Your task to perform on an android device: open app "Google Translate" (install if not already installed) Image 0: 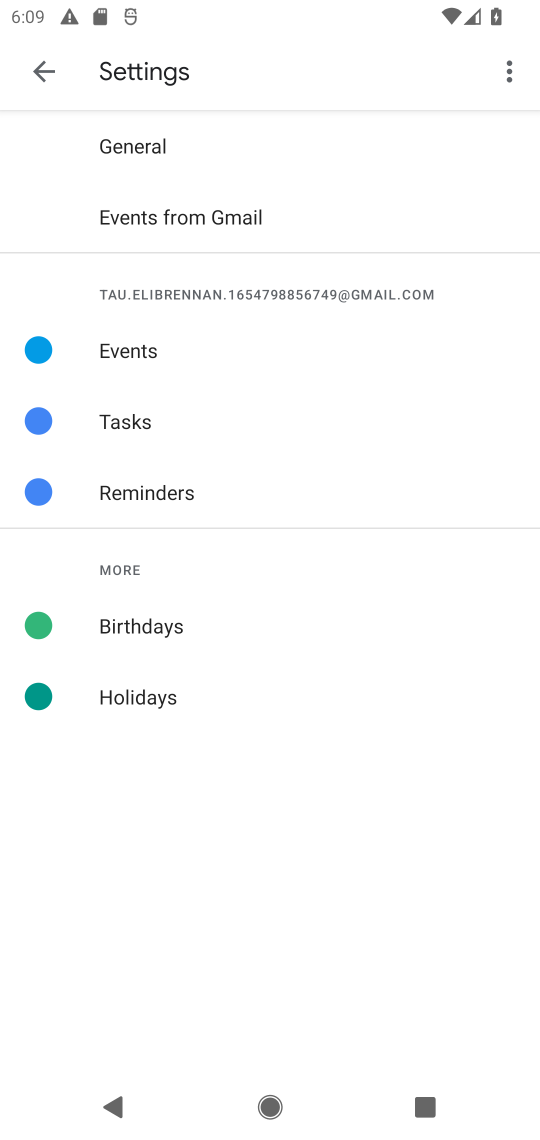
Step 0: press home button
Your task to perform on an android device: open app "Google Translate" (install if not already installed) Image 1: 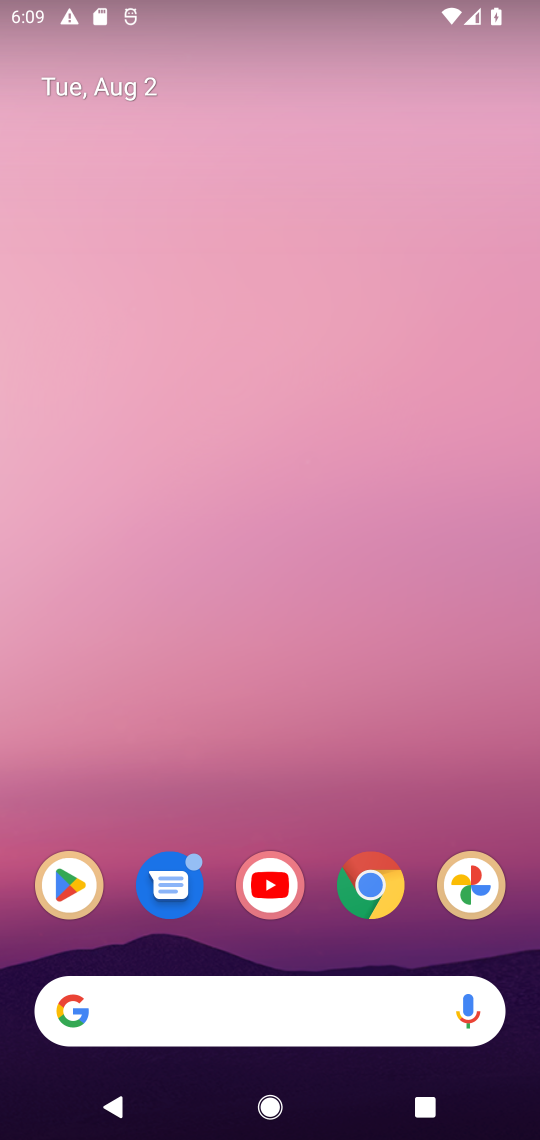
Step 1: drag from (363, 674) to (352, 133)
Your task to perform on an android device: open app "Google Translate" (install if not already installed) Image 2: 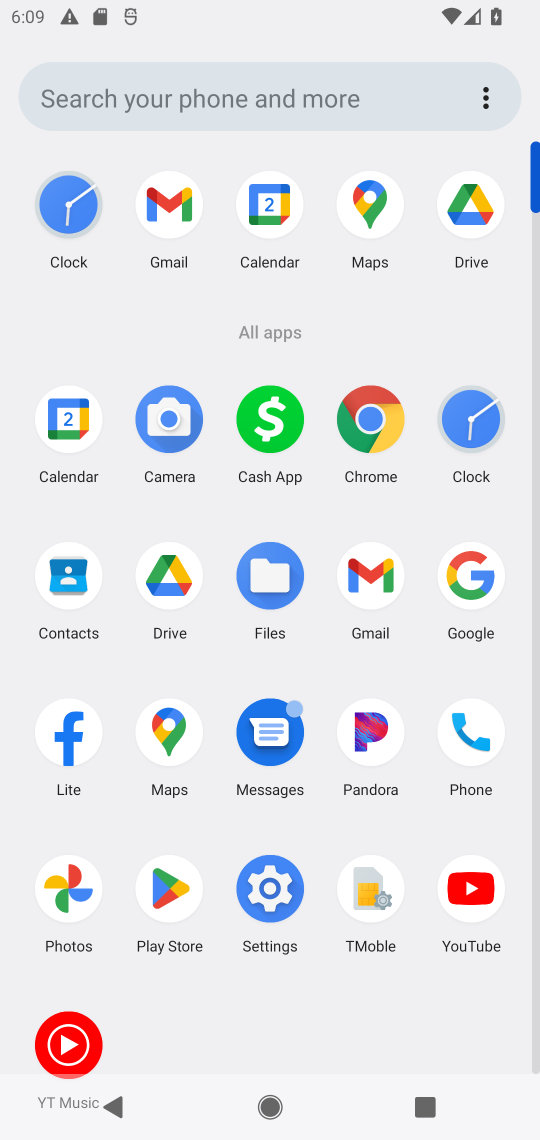
Step 2: click (171, 887)
Your task to perform on an android device: open app "Google Translate" (install if not already installed) Image 3: 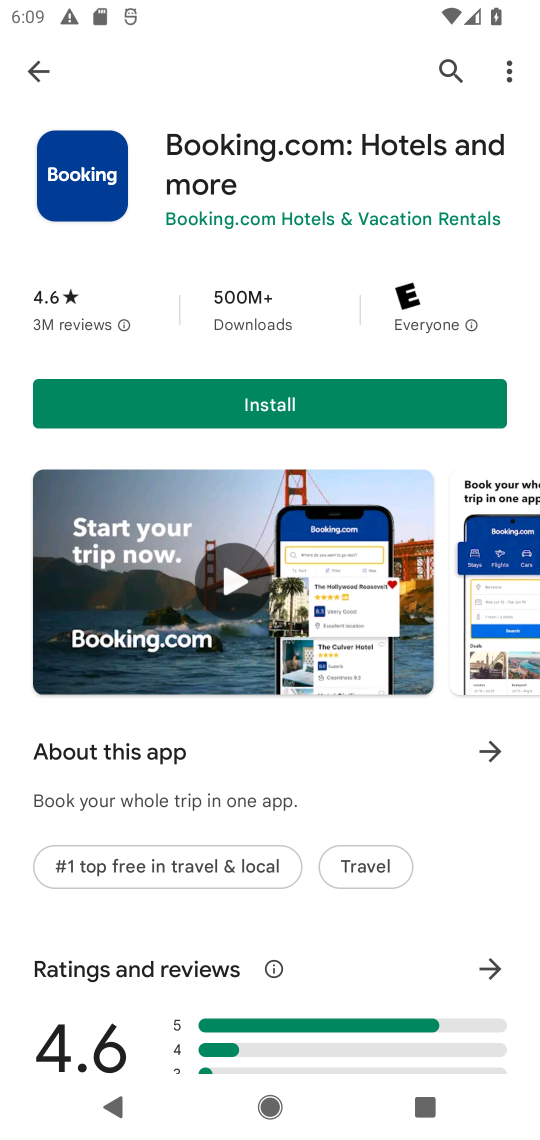
Step 3: click (432, 76)
Your task to perform on an android device: open app "Google Translate" (install if not already installed) Image 4: 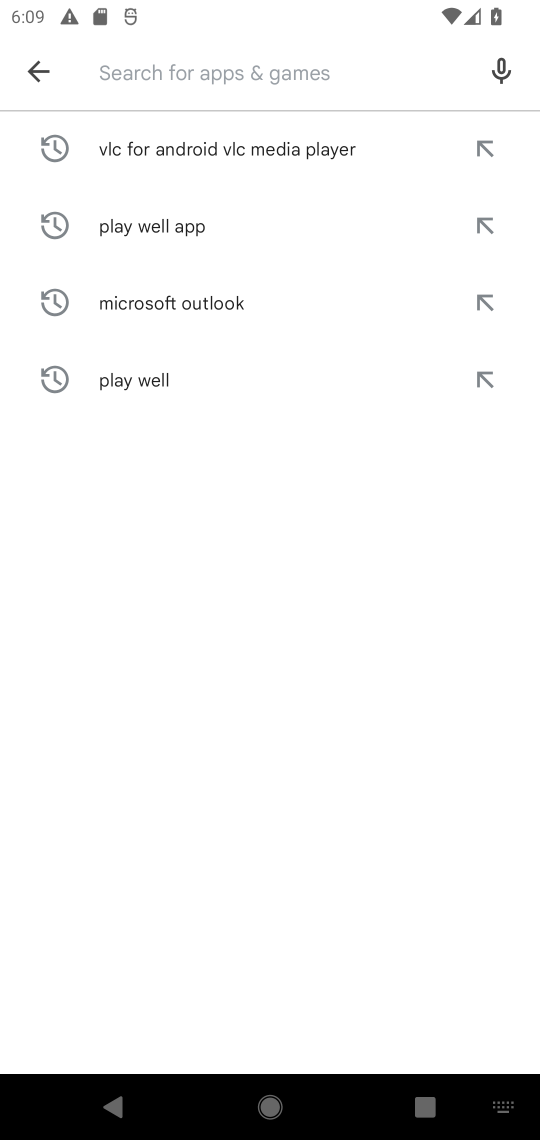
Step 4: click (363, 77)
Your task to perform on an android device: open app "Google Translate" (install if not already installed) Image 5: 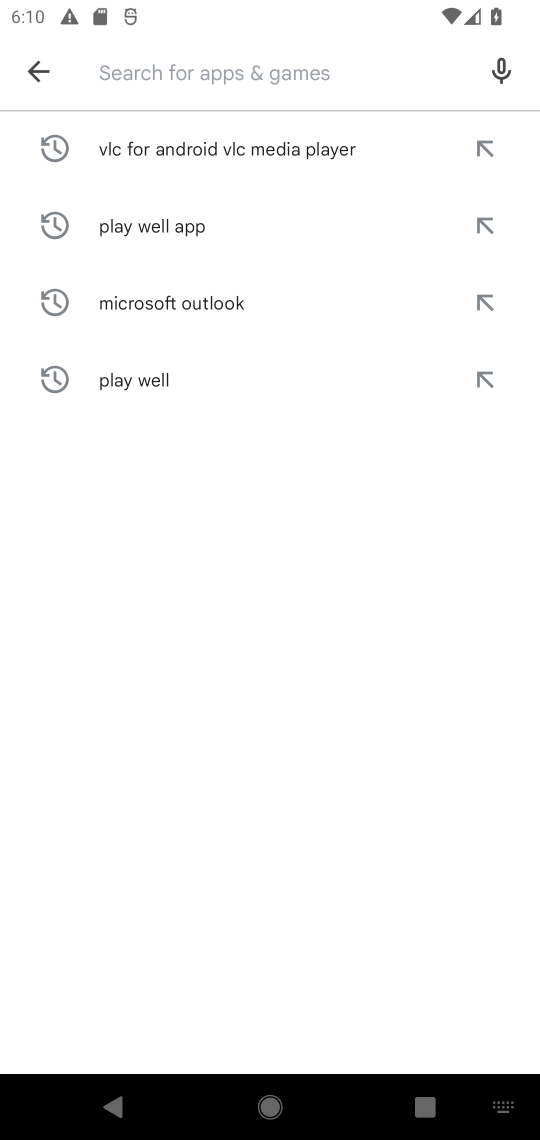
Step 5: type "Google Translate"
Your task to perform on an android device: open app "Google Translate" (install if not already installed) Image 6: 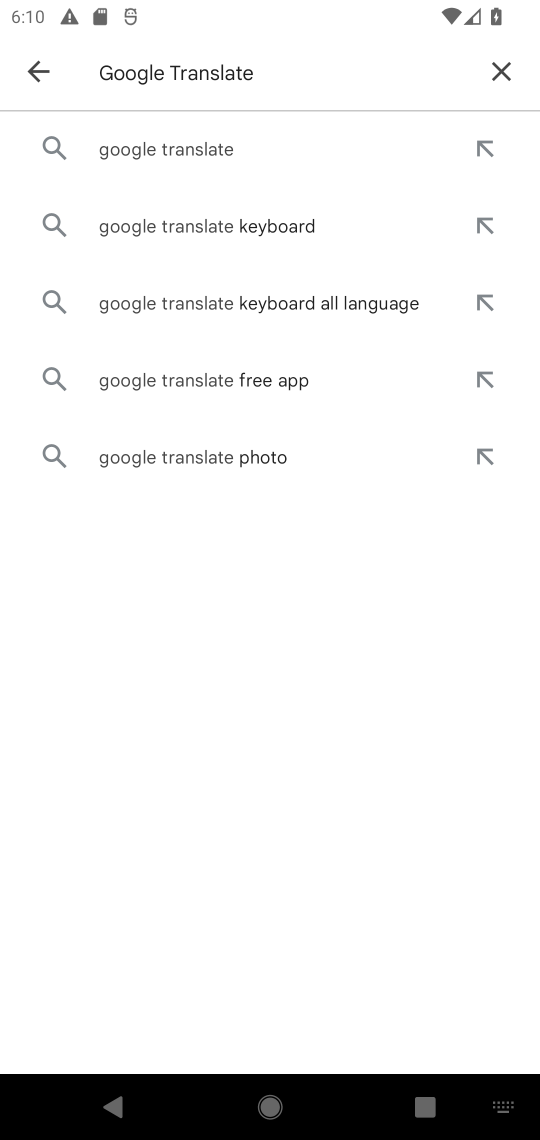
Step 6: click (243, 152)
Your task to perform on an android device: open app "Google Translate" (install if not already installed) Image 7: 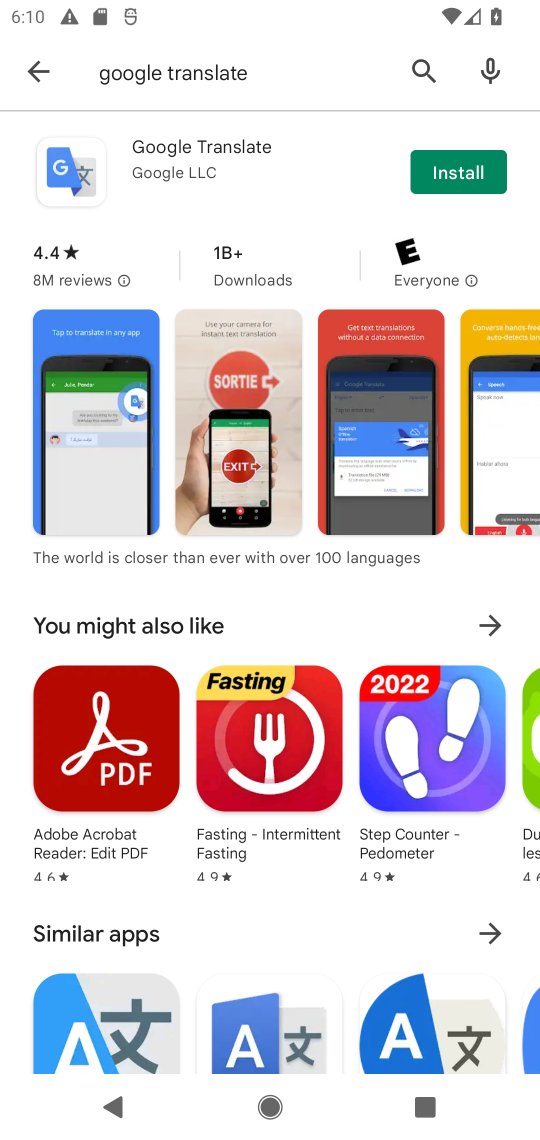
Step 7: click (462, 181)
Your task to perform on an android device: open app "Google Translate" (install if not already installed) Image 8: 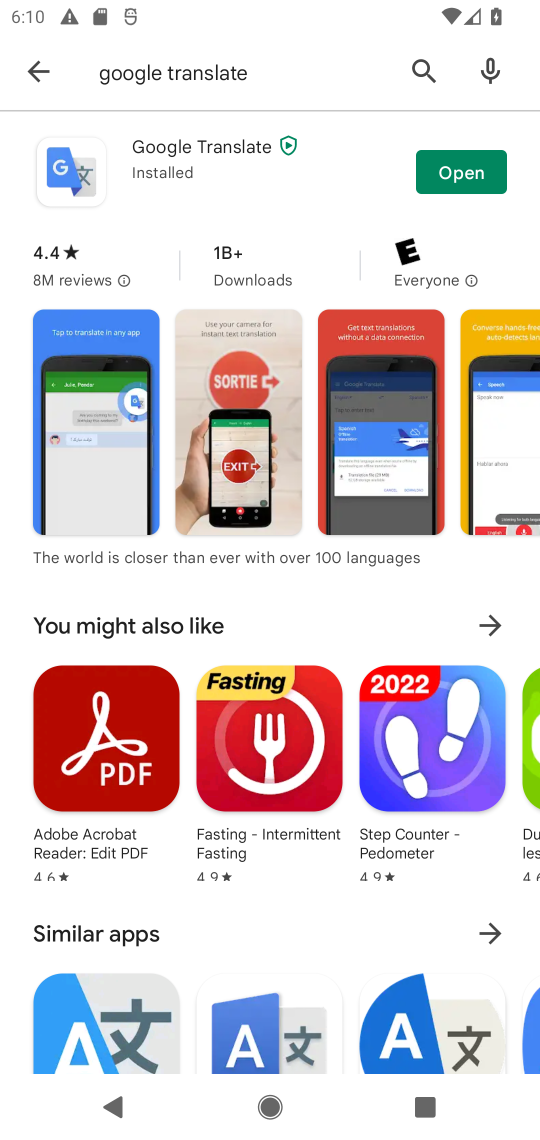
Step 8: click (461, 172)
Your task to perform on an android device: open app "Google Translate" (install if not already installed) Image 9: 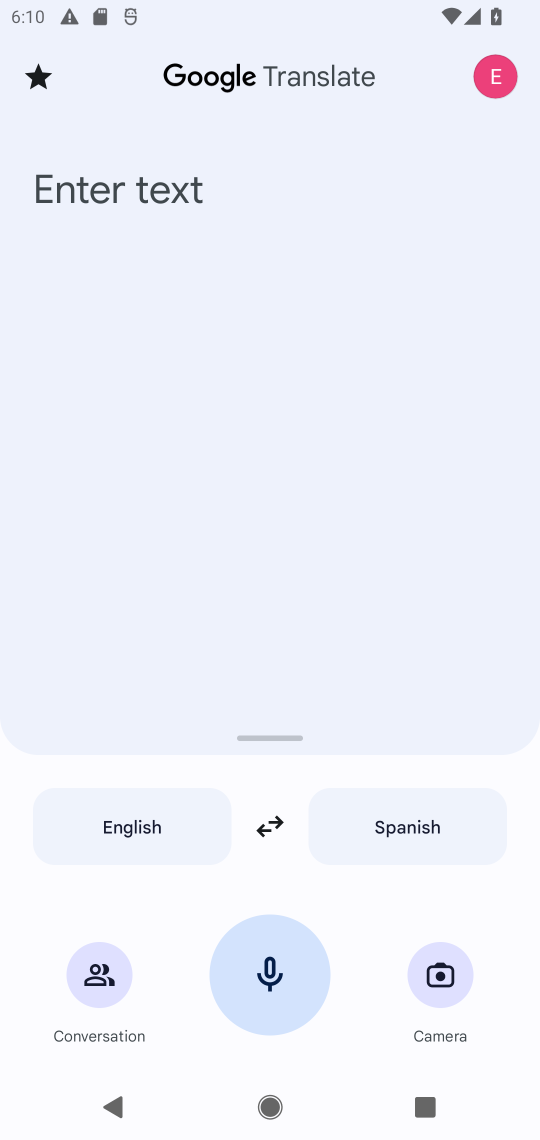
Step 9: task complete